Your task to perform on an android device: open the mobile data screen to see how much data has been used Image 0: 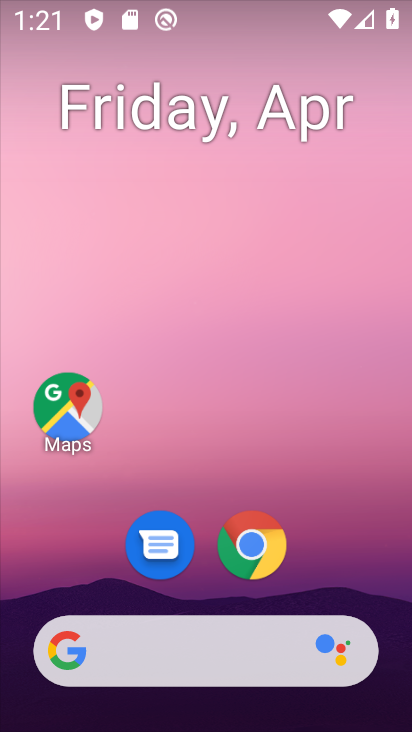
Step 0: drag from (363, 539) to (326, 149)
Your task to perform on an android device: open the mobile data screen to see how much data has been used Image 1: 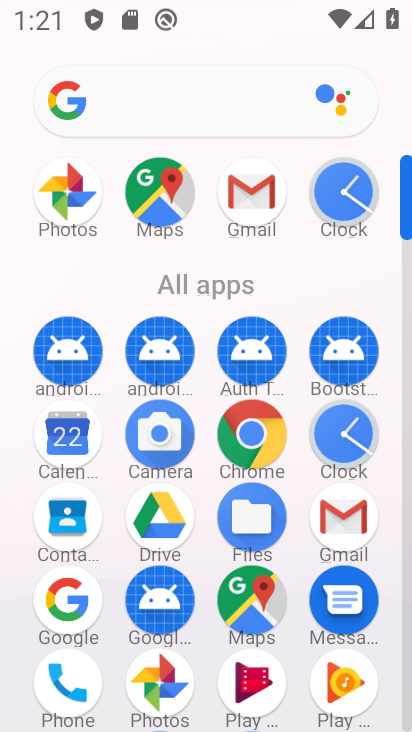
Step 1: drag from (302, 564) to (293, 195)
Your task to perform on an android device: open the mobile data screen to see how much data has been used Image 2: 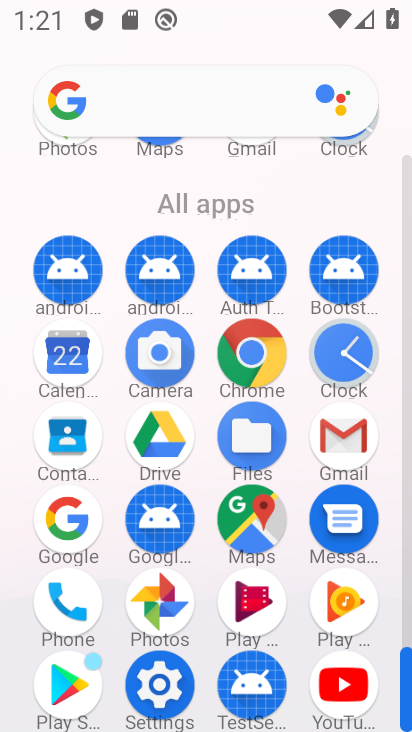
Step 2: click (159, 694)
Your task to perform on an android device: open the mobile data screen to see how much data has been used Image 3: 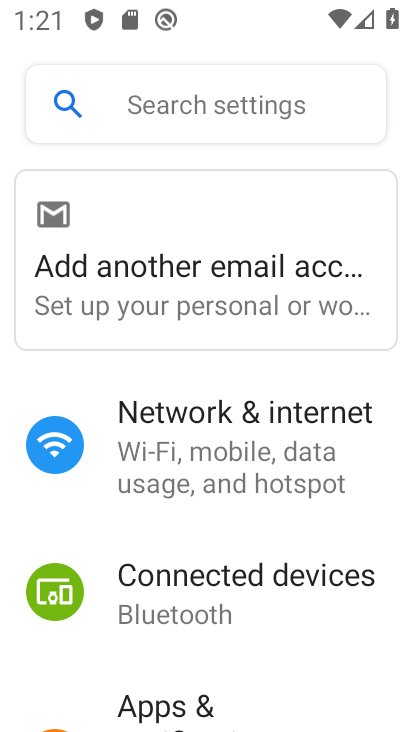
Step 3: click (203, 493)
Your task to perform on an android device: open the mobile data screen to see how much data has been used Image 4: 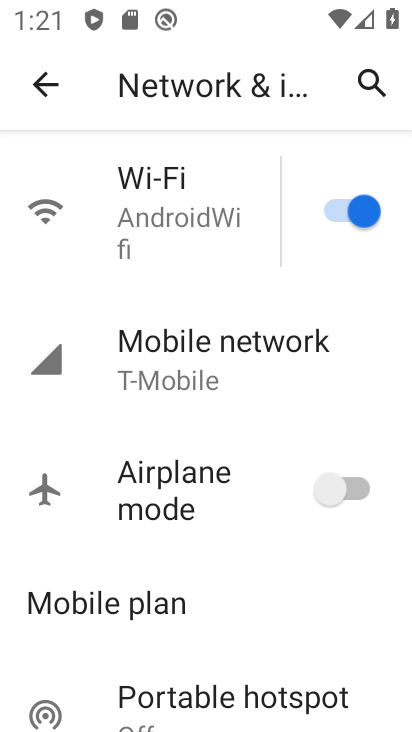
Step 4: click (214, 377)
Your task to perform on an android device: open the mobile data screen to see how much data has been used Image 5: 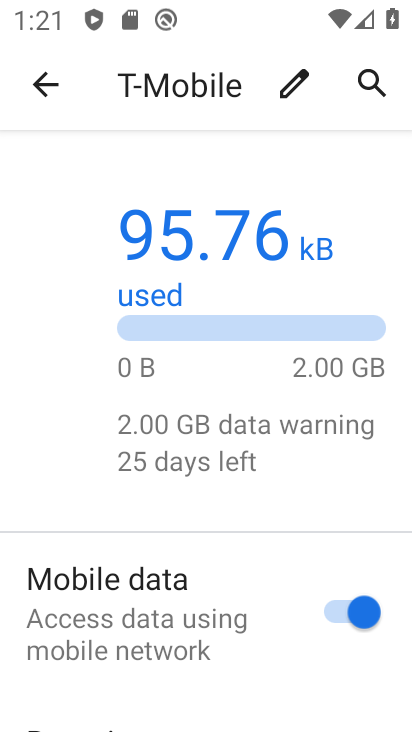
Step 5: drag from (215, 685) to (194, 273)
Your task to perform on an android device: open the mobile data screen to see how much data has been used Image 6: 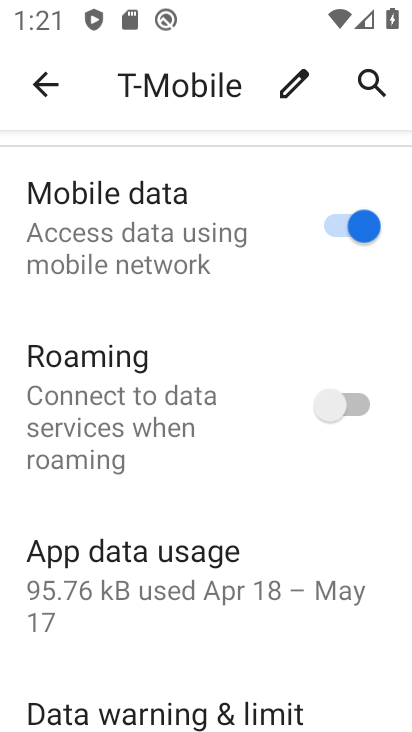
Step 6: click (127, 561)
Your task to perform on an android device: open the mobile data screen to see how much data has been used Image 7: 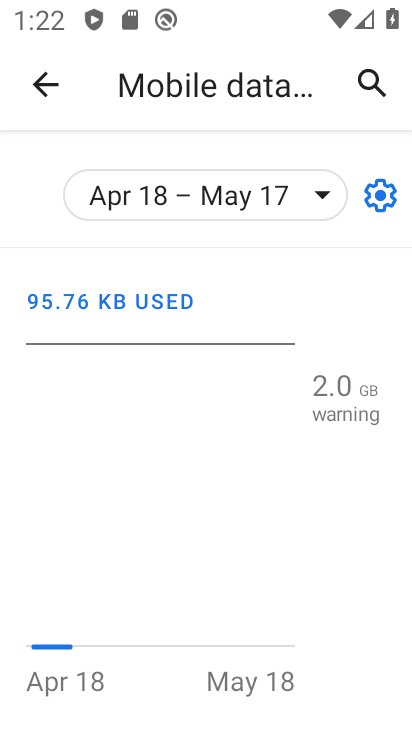
Step 7: task complete